Your task to perform on an android device: turn off location Image 0: 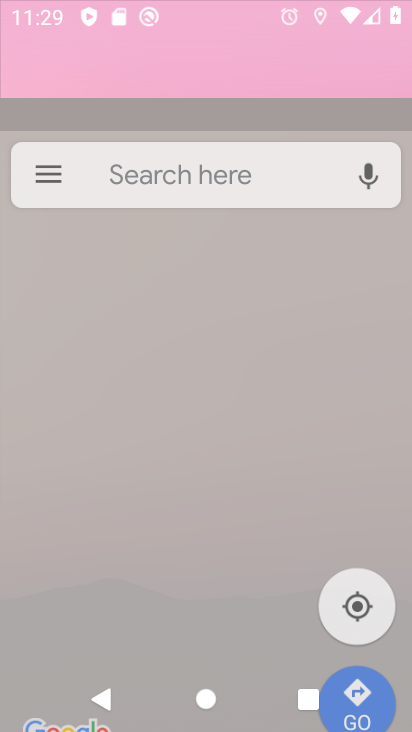
Step 0: click (183, 47)
Your task to perform on an android device: turn off location Image 1: 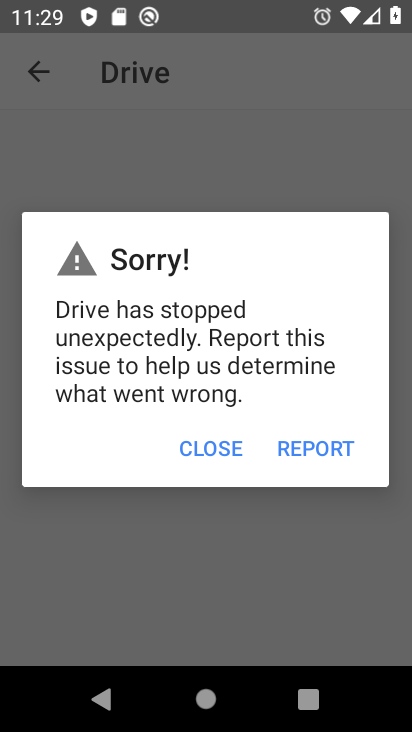
Step 1: press home button
Your task to perform on an android device: turn off location Image 2: 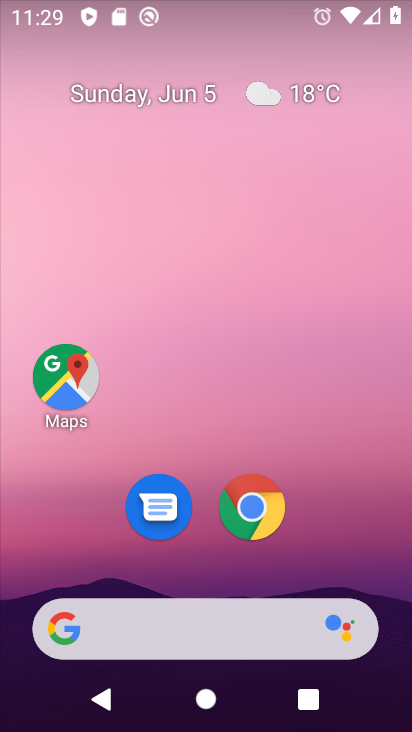
Step 2: drag from (252, 729) to (218, 106)
Your task to perform on an android device: turn off location Image 3: 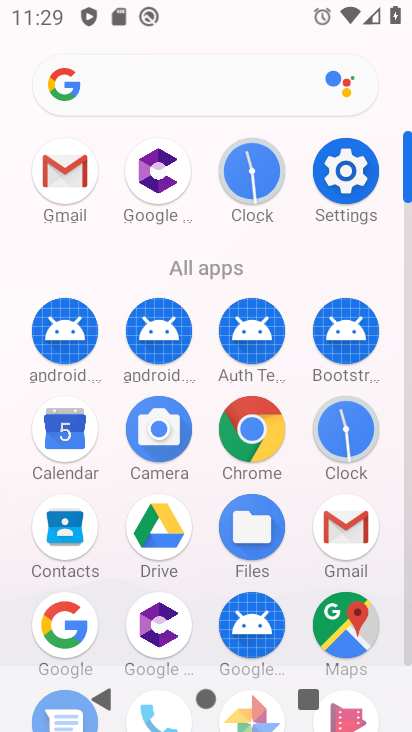
Step 3: click (327, 173)
Your task to perform on an android device: turn off location Image 4: 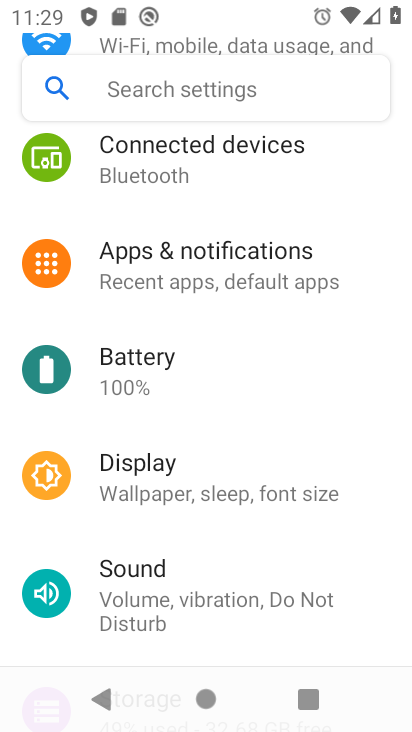
Step 4: drag from (175, 623) to (167, 219)
Your task to perform on an android device: turn off location Image 5: 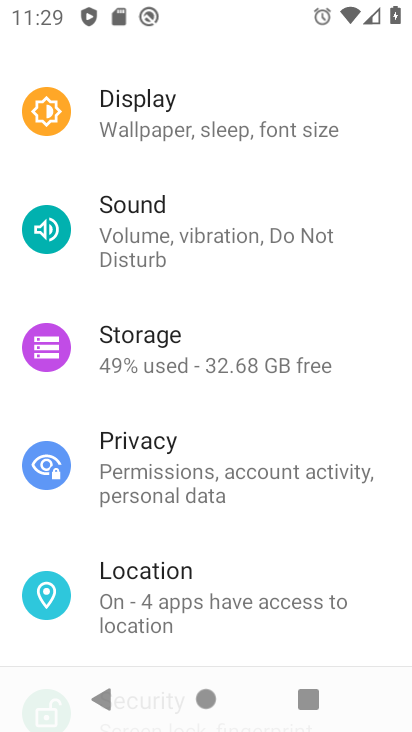
Step 5: click (162, 573)
Your task to perform on an android device: turn off location Image 6: 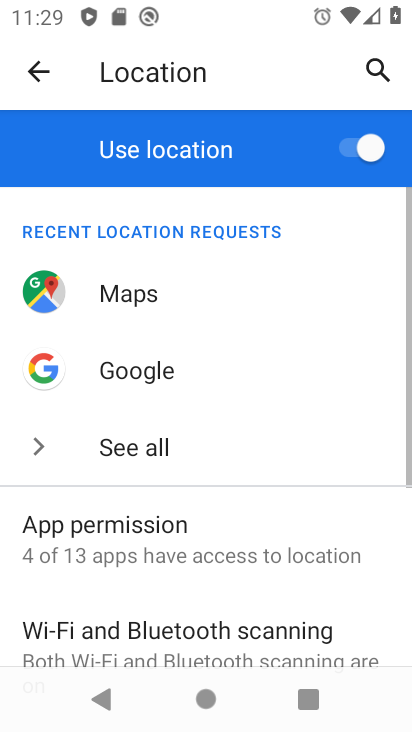
Step 6: click (346, 149)
Your task to perform on an android device: turn off location Image 7: 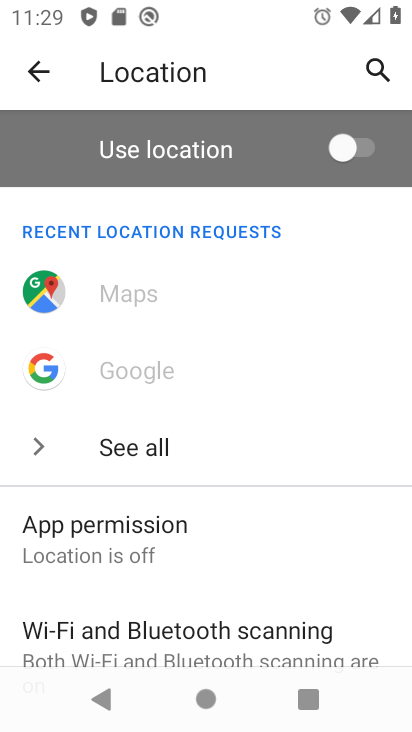
Step 7: task complete